Your task to perform on an android device: change text size in settings app Image 0: 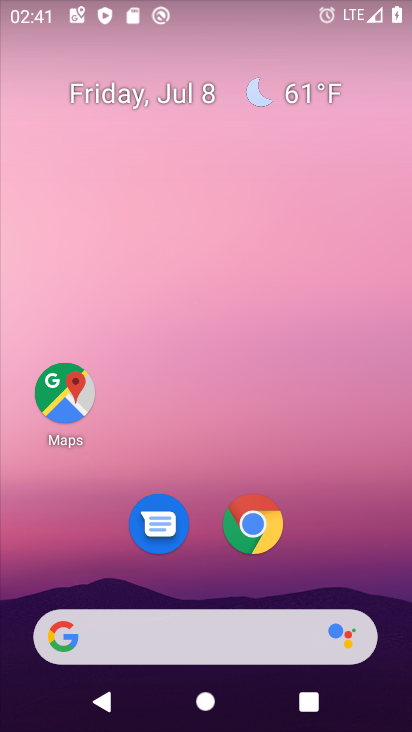
Step 0: drag from (300, 536) to (373, 38)
Your task to perform on an android device: change text size in settings app Image 1: 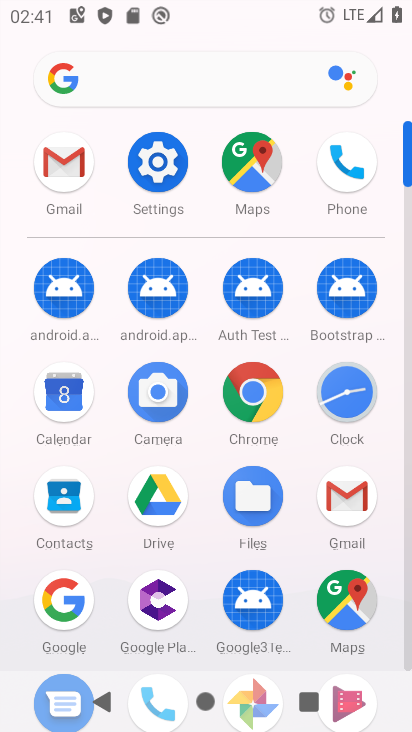
Step 1: click (165, 165)
Your task to perform on an android device: change text size in settings app Image 2: 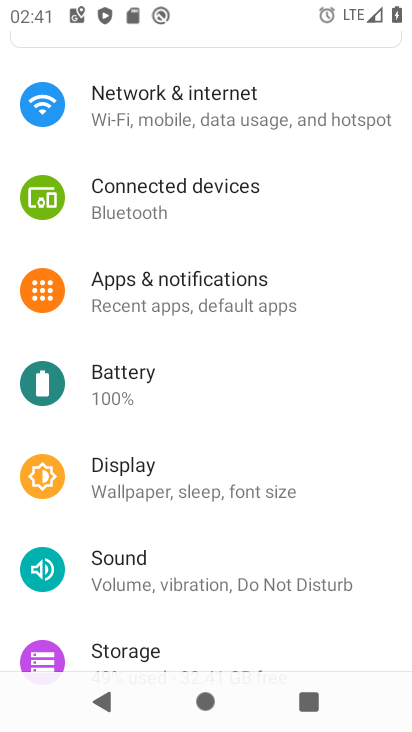
Step 2: click (168, 476)
Your task to perform on an android device: change text size in settings app Image 3: 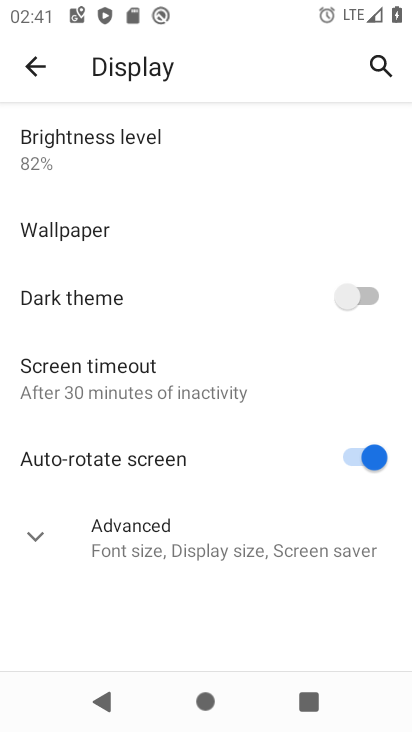
Step 3: click (39, 534)
Your task to perform on an android device: change text size in settings app Image 4: 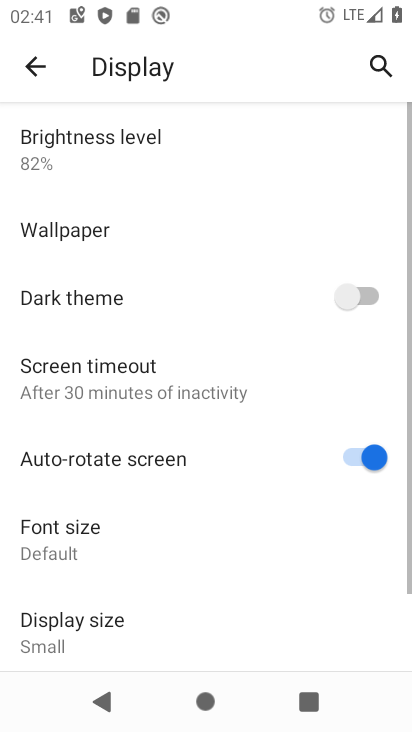
Step 4: drag from (227, 437) to (304, 149)
Your task to perform on an android device: change text size in settings app Image 5: 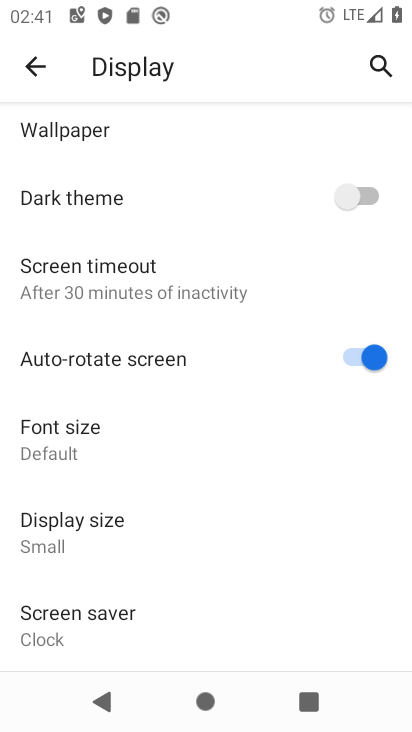
Step 5: click (87, 449)
Your task to perform on an android device: change text size in settings app Image 6: 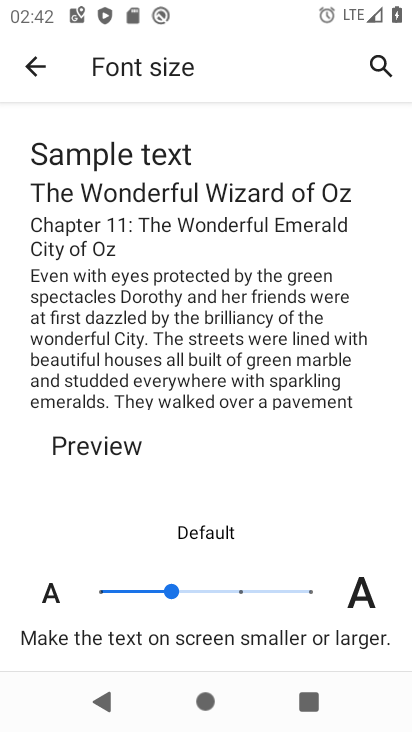
Step 6: click (108, 591)
Your task to perform on an android device: change text size in settings app Image 7: 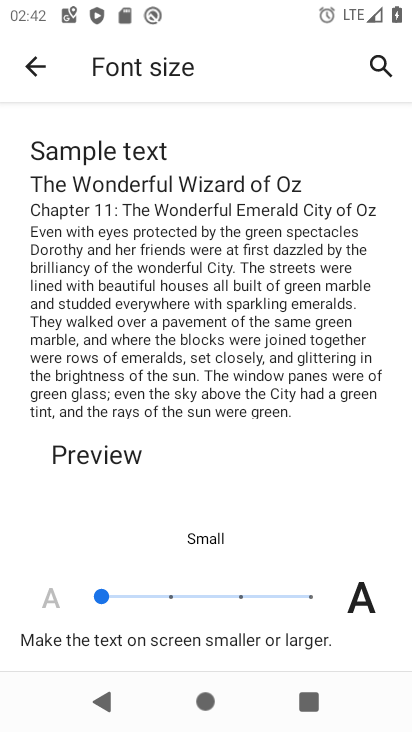
Step 7: click (39, 67)
Your task to perform on an android device: change text size in settings app Image 8: 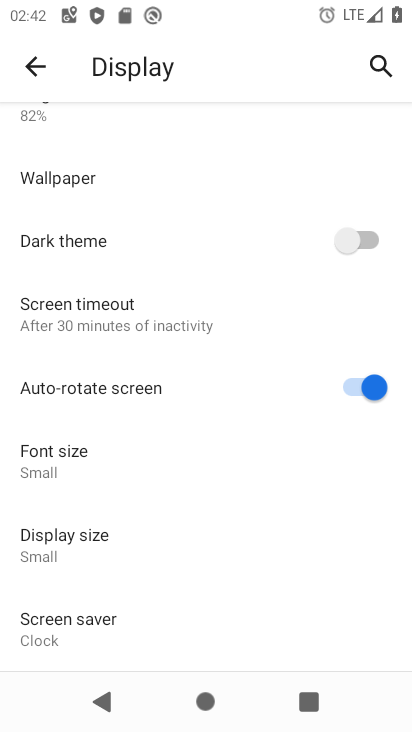
Step 8: task complete